Your task to perform on an android device: open chrome privacy settings Image 0: 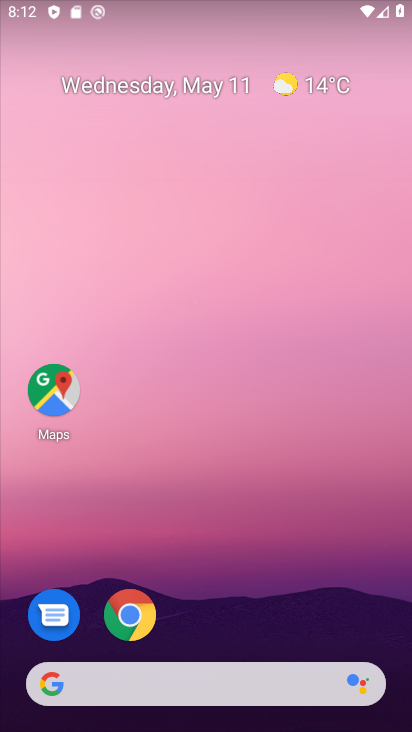
Step 0: click (132, 625)
Your task to perform on an android device: open chrome privacy settings Image 1: 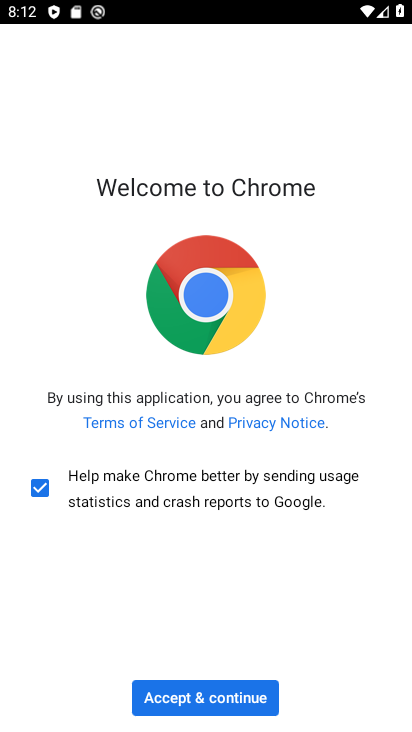
Step 1: click (230, 693)
Your task to perform on an android device: open chrome privacy settings Image 2: 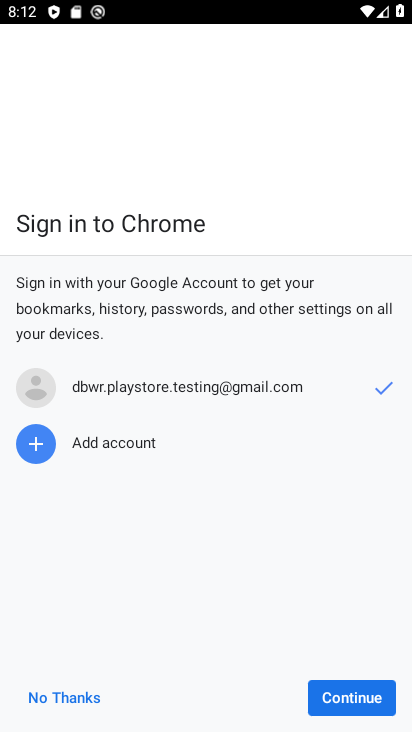
Step 2: click (324, 705)
Your task to perform on an android device: open chrome privacy settings Image 3: 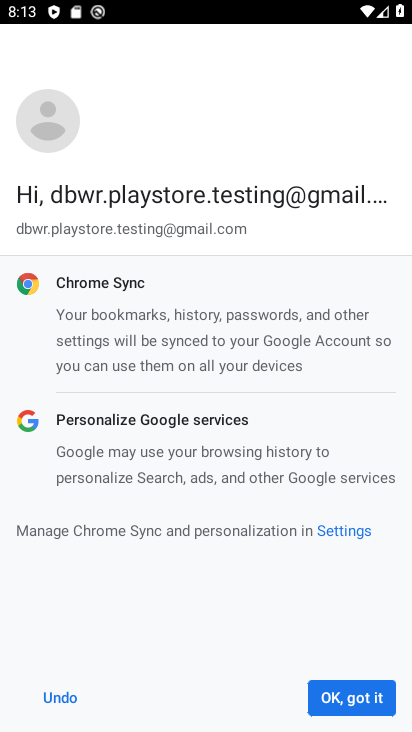
Step 3: click (324, 705)
Your task to perform on an android device: open chrome privacy settings Image 4: 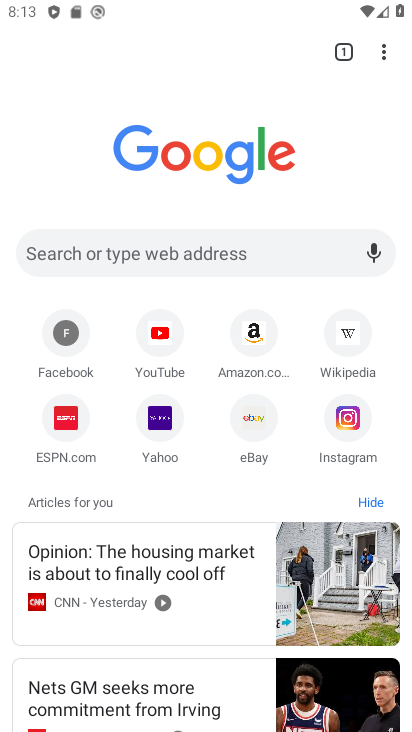
Step 4: click (379, 47)
Your task to perform on an android device: open chrome privacy settings Image 5: 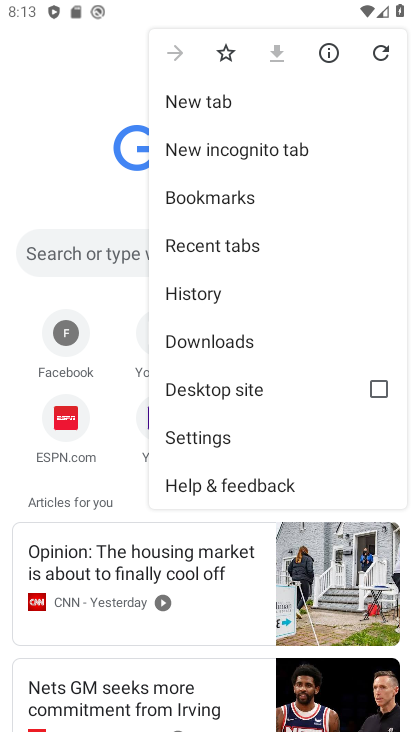
Step 5: click (215, 438)
Your task to perform on an android device: open chrome privacy settings Image 6: 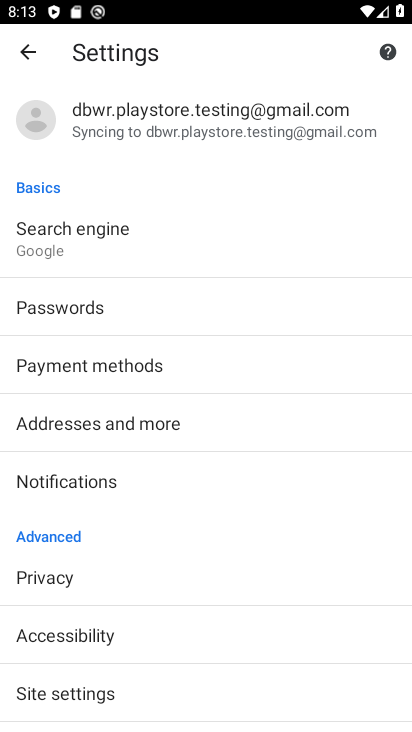
Step 6: click (70, 588)
Your task to perform on an android device: open chrome privacy settings Image 7: 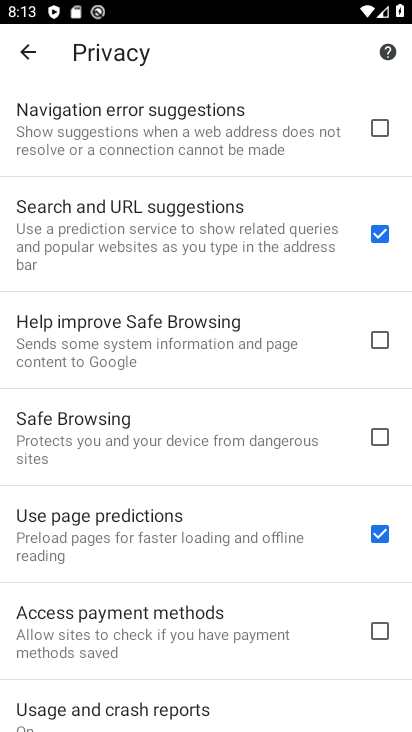
Step 7: task complete